Your task to perform on an android device: turn on the 12-hour format for clock Image 0: 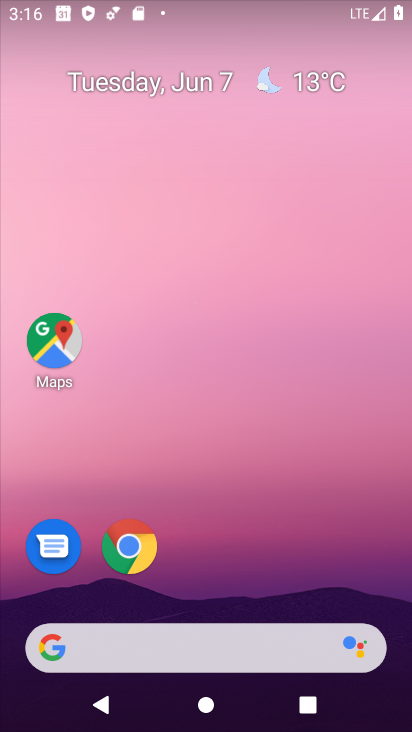
Step 0: drag from (199, 584) to (233, 103)
Your task to perform on an android device: turn on the 12-hour format for clock Image 1: 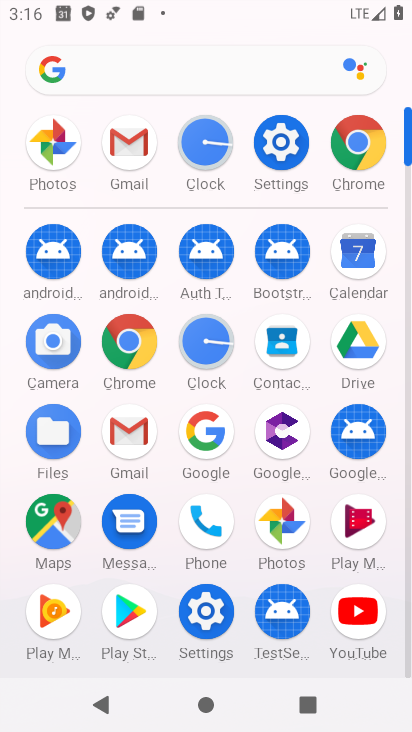
Step 1: click (201, 151)
Your task to perform on an android device: turn on the 12-hour format for clock Image 2: 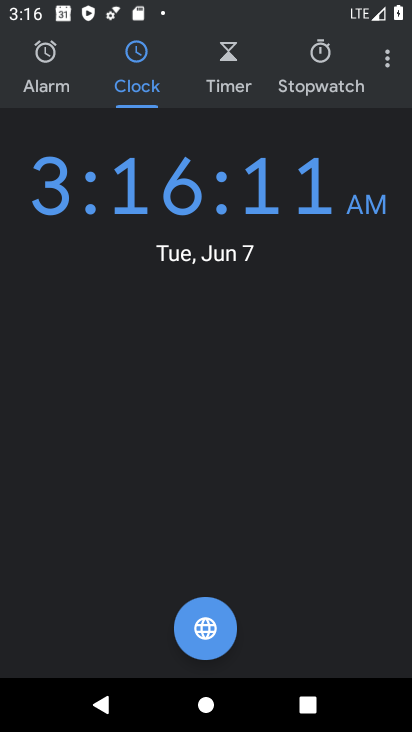
Step 2: click (388, 62)
Your task to perform on an android device: turn on the 12-hour format for clock Image 3: 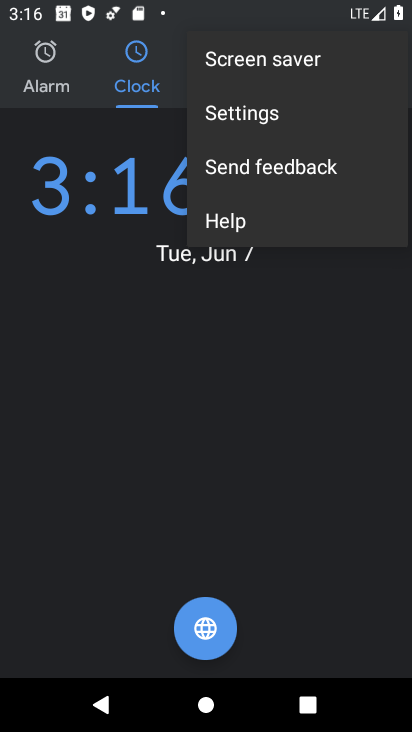
Step 3: click (293, 111)
Your task to perform on an android device: turn on the 12-hour format for clock Image 4: 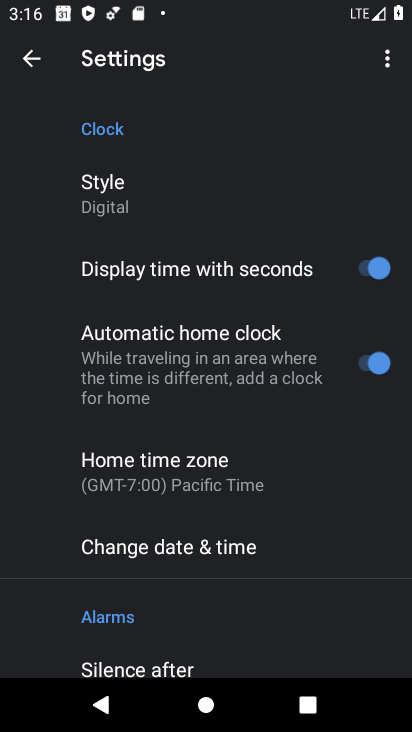
Step 4: click (148, 545)
Your task to perform on an android device: turn on the 12-hour format for clock Image 5: 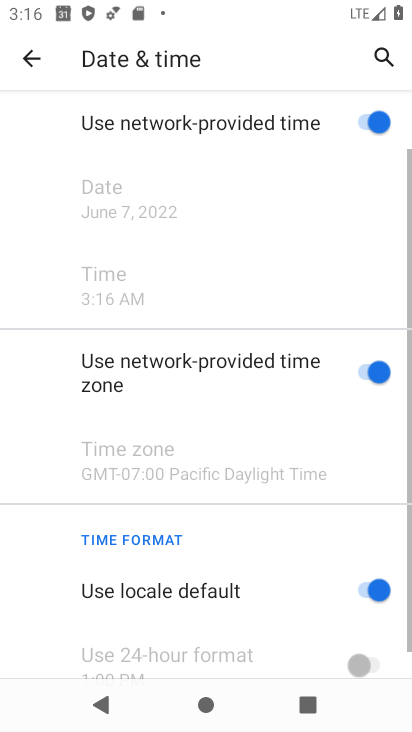
Step 5: task complete